Your task to perform on an android device: Open Amazon Image 0: 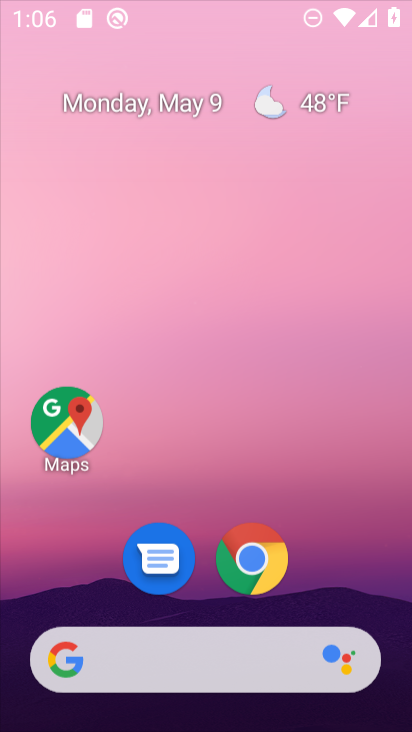
Step 0: click (281, 77)
Your task to perform on an android device: Open Amazon Image 1: 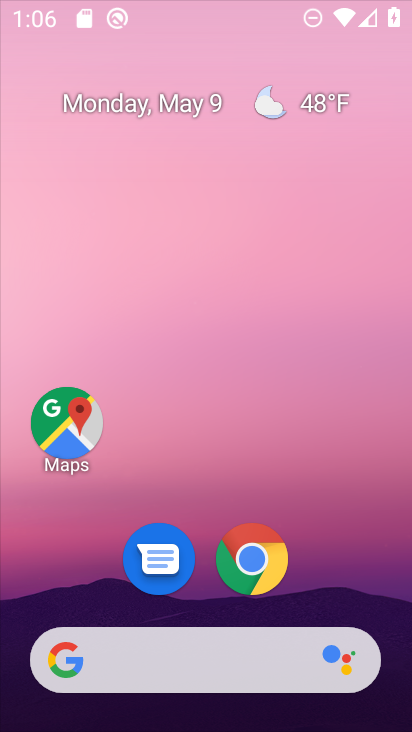
Step 1: drag from (222, 604) to (294, 202)
Your task to perform on an android device: Open Amazon Image 2: 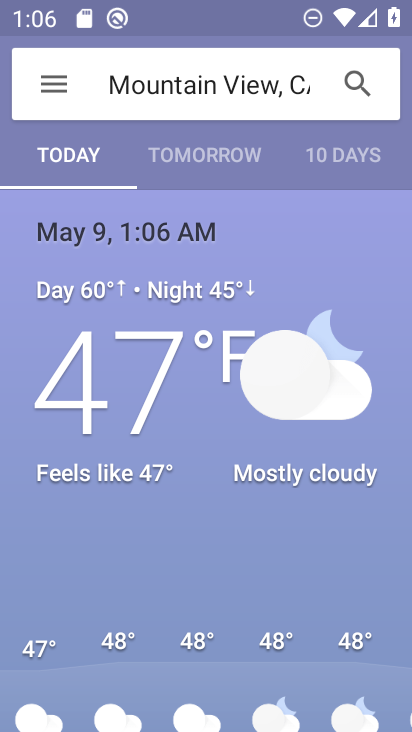
Step 2: press home button
Your task to perform on an android device: Open Amazon Image 3: 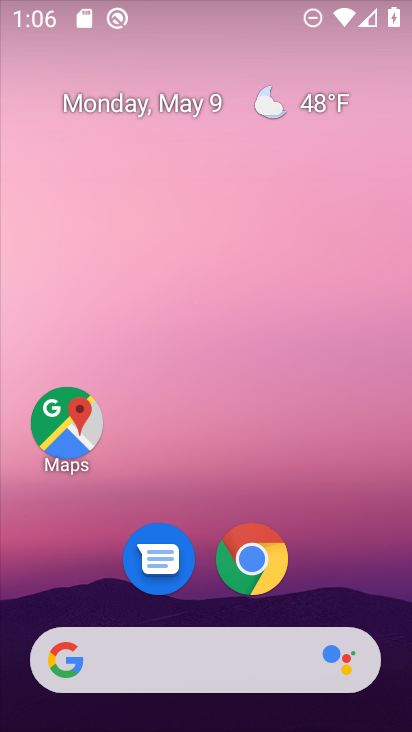
Step 3: drag from (204, 601) to (267, 181)
Your task to perform on an android device: Open Amazon Image 4: 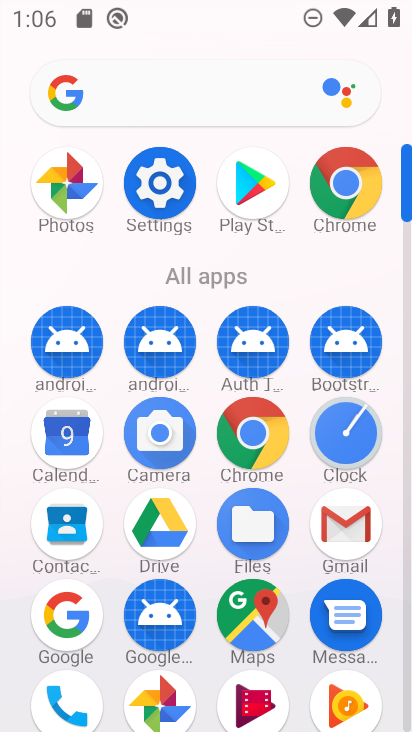
Step 4: click (165, 86)
Your task to perform on an android device: Open Amazon Image 5: 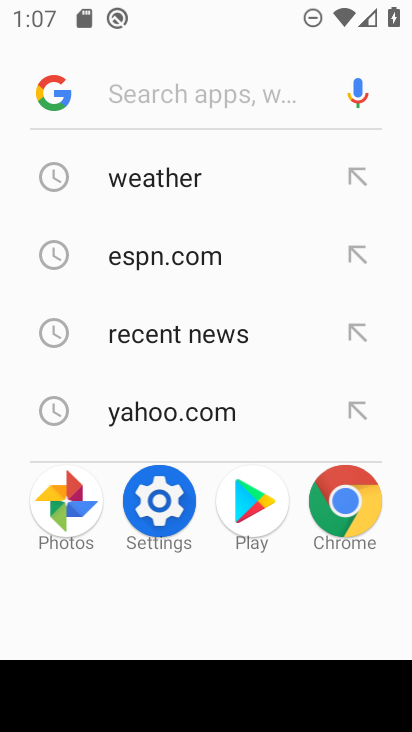
Step 5: type "amazon"
Your task to perform on an android device: Open Amazon Image 6: 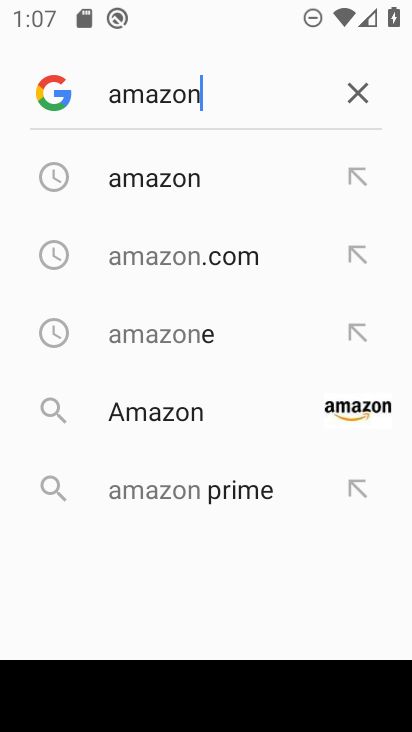
Step 6: click (190, 165)
Your task to perform on an android device: Open Amazon Image 7: 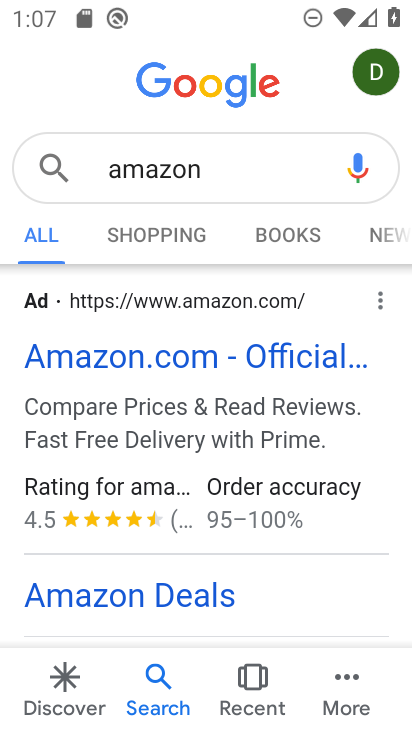
Step 7: click (159, 368)
Your task to perform on an android device: Open Amazon Image 8: 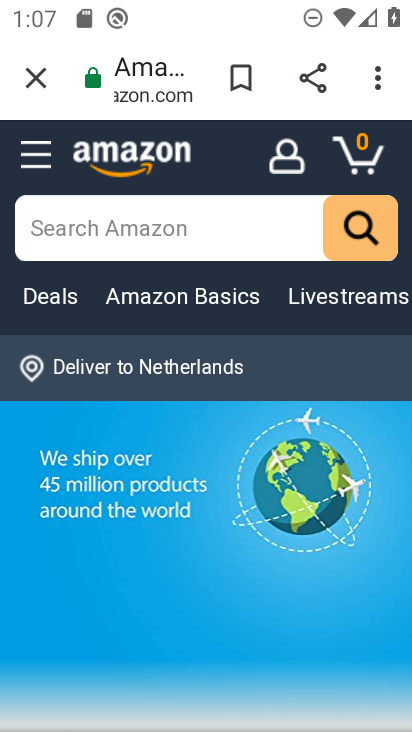
Step 8: task complete